Your task to perform on an android device: turn off priority inbox in the gmail app Image 0: 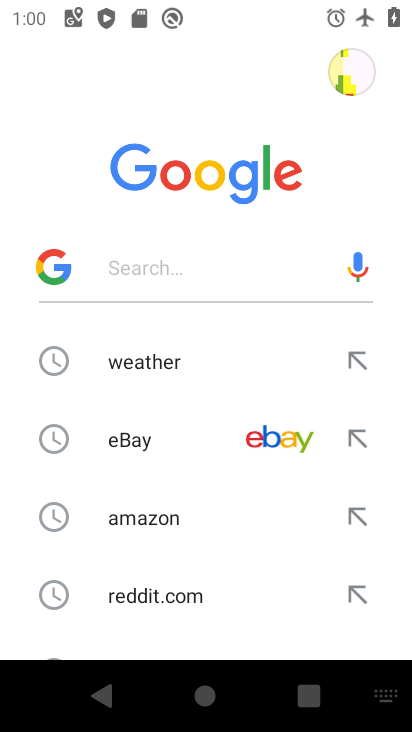
Step 0: press home button
Your task to perform on an android device: turn off priority inbox in the gmail app Image 1: 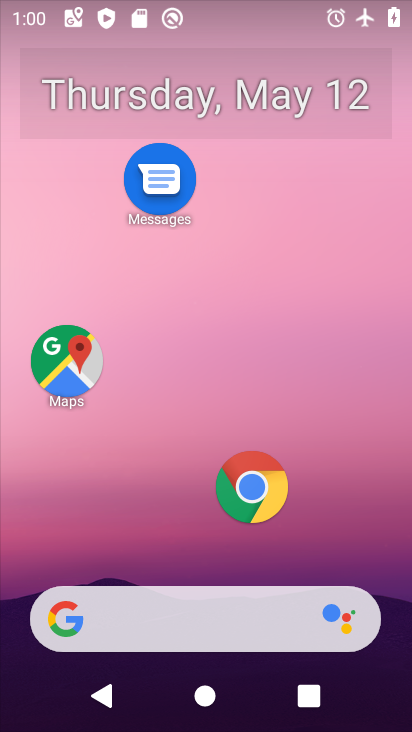
Step 1: drag from (200, 552) to (201, 211)
Your task to perform on an android device: turn off priority inbox in the gmail app Image 2: 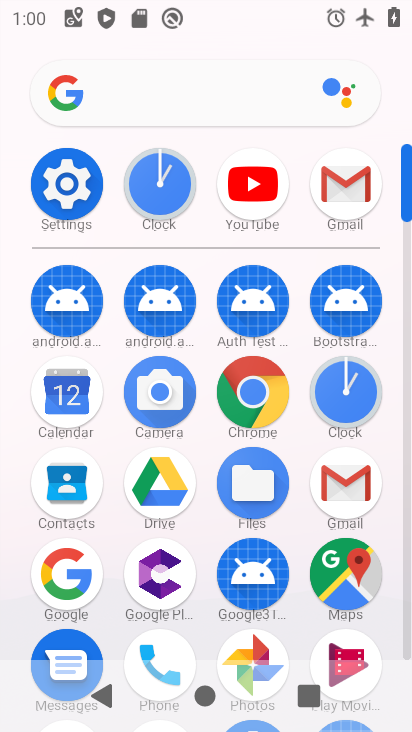
Step 2: click (338, 198)
Your task to perform on an android device: turn off priority inbox in the gmail app Image 3: 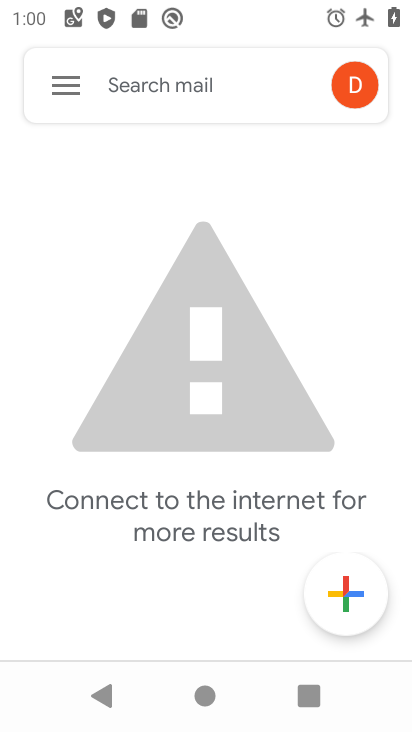
Step 3: click (67, 94)
Your task to perform on an android device: turn off priority inbox in the gmail app Image 4: 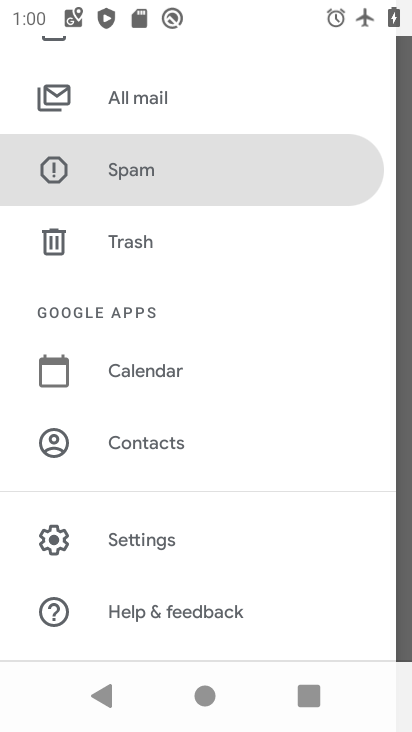
Step 4: click (204, 542)
Your task to perform on an android device: turn off priority inbox in the gmail app Image 5: 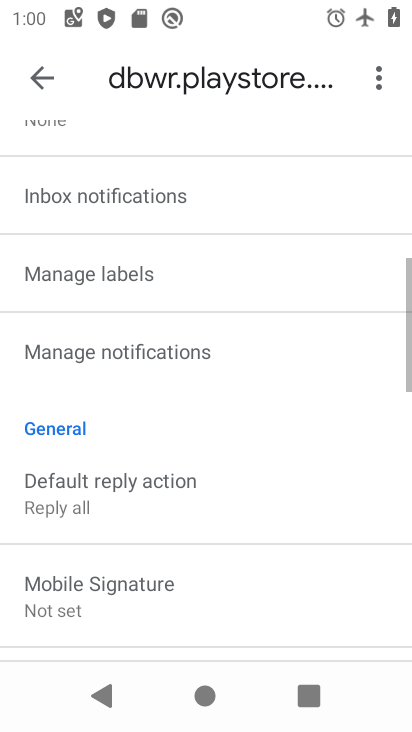
Step 5: drag from (167, 213) to (167, 451)
Your task to perform on an android device: turn off priority inbox in the gmail app Image 6: 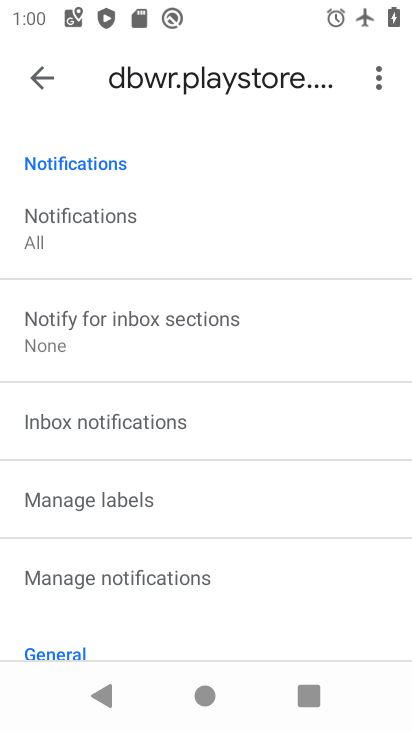
Step 6: drag from (169, 211) to (195, 427)
Your task to perform on an android device: turn off priority inbox in the gmail app Image 7: 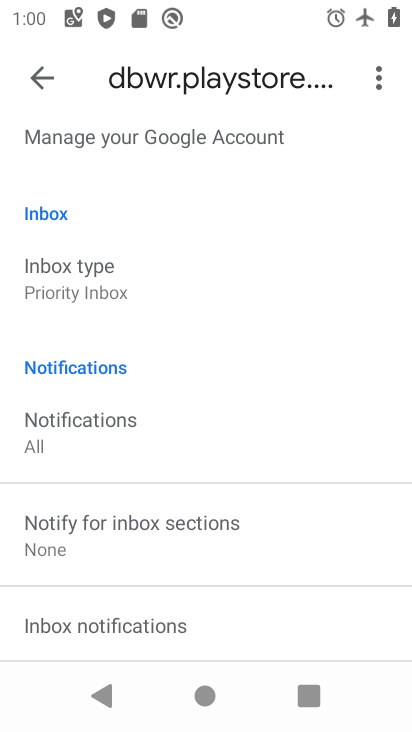
Step 7: click (157, 267)
Your task to perform on an android device: turn off priority inbox in the gmail app Image 8: 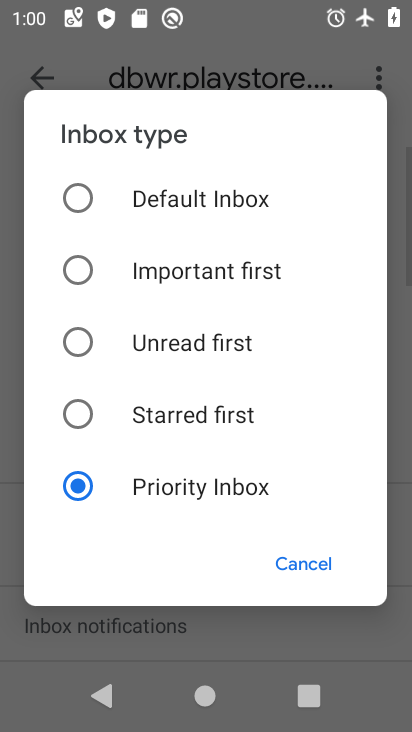
Step 8: click (156, 200)
Your task to perform on an android device: turn off priority inbox in the gmail app Image 9: 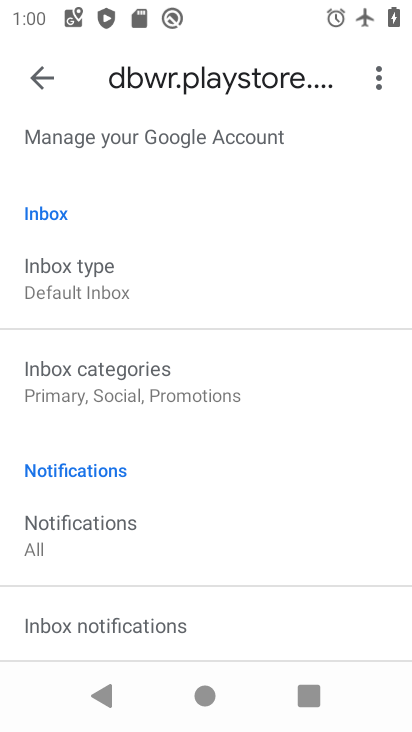
Step 9: task complete